Your task to perform on an android device: open wifi settings Image 0: 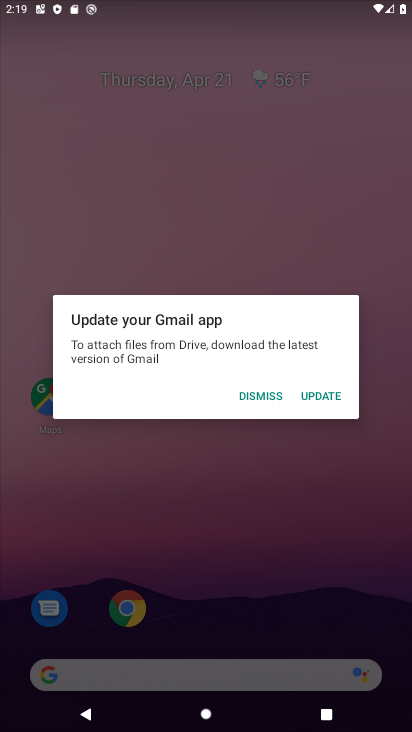
Step 0: press home button
Your task to perform on an android device: open wifi settings Image 1: 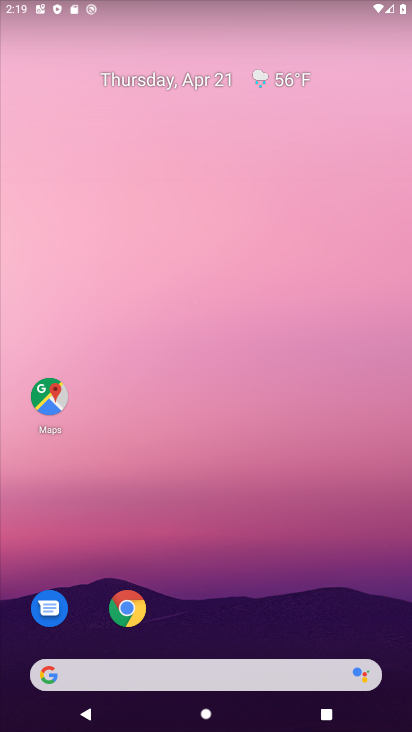
Step 1: drag from (294, 596) to (224, 98)
Your task to perform on an android device: open wifi settings Image 2: 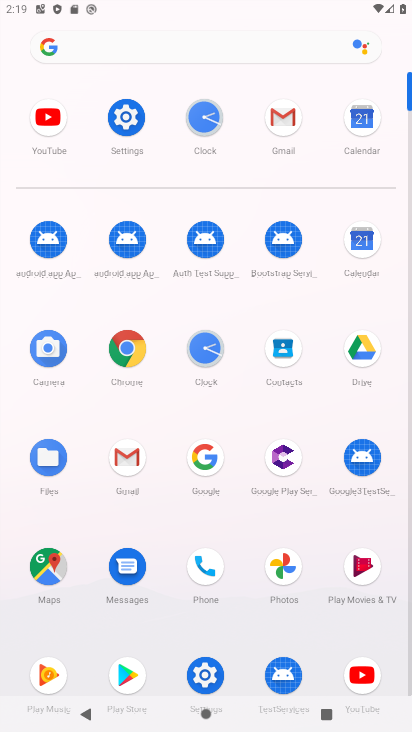
Step 2: click (122, 117)
Your task to perform on an android device: open wifi settings Image 3: 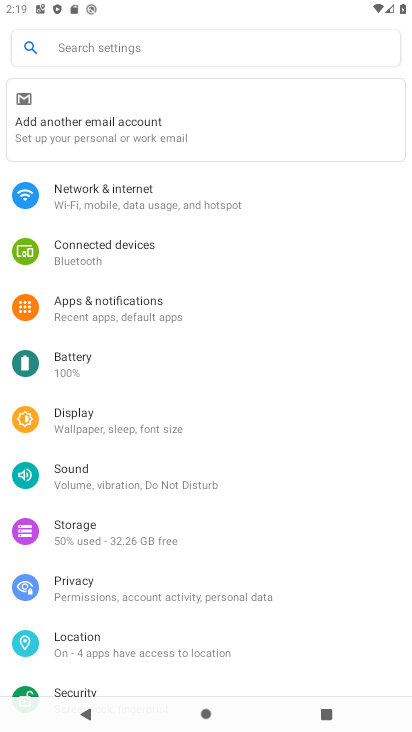
Step 3: click (119, 189)
Your task to perform on an android device: open wifi settings Image 4: 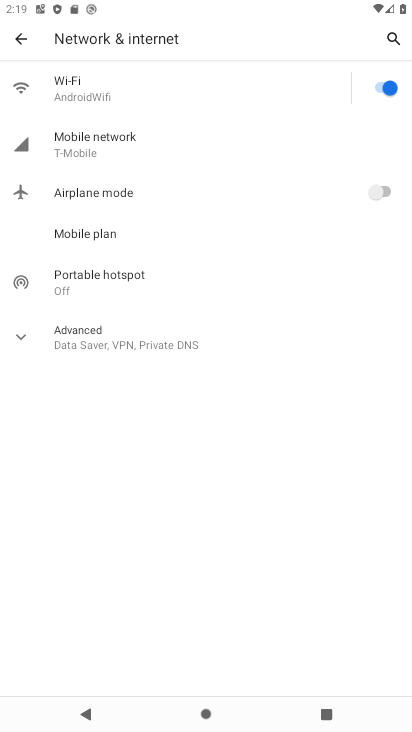
Step 4: click (125, 81)
Your task to perform on an android device: open wifi settings Image 5: 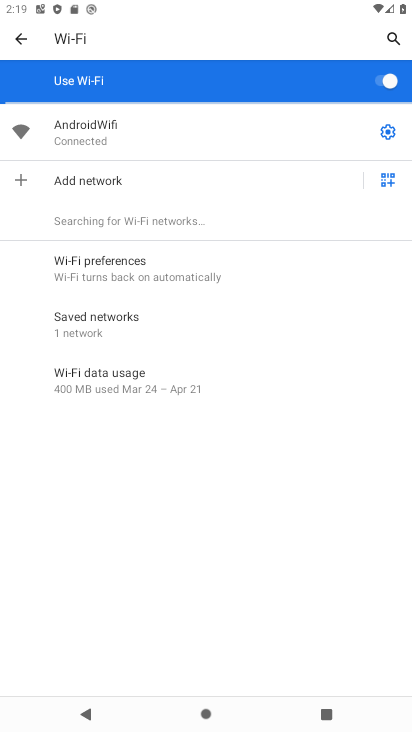
Step 5: task complete